Your task to perform on an android device: change notifications settings Image 0: 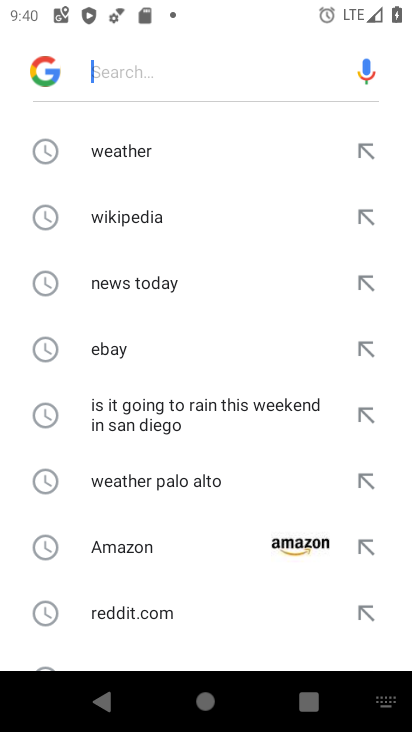
Step 0: press home button
Your task to perform on an android device: change notifications settings Image 1: 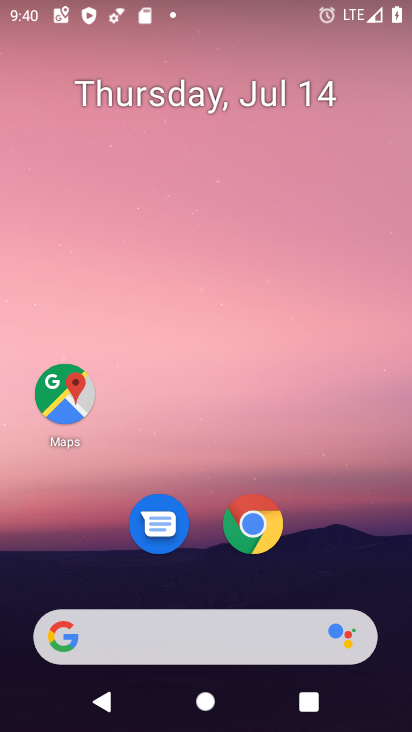
Step 1: drag from (208, 460) to (280, 28)
Your task to perform on an android device: change notifications settings Image 2: 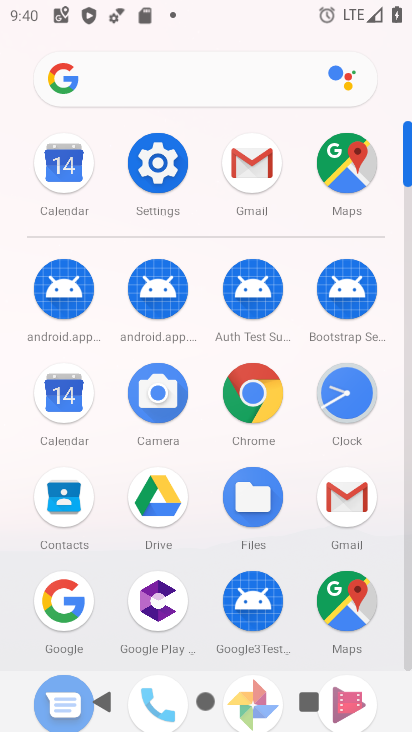
Step 2: click (142, 146)
Your task to perform on an android device: change notifications settings Image 3: 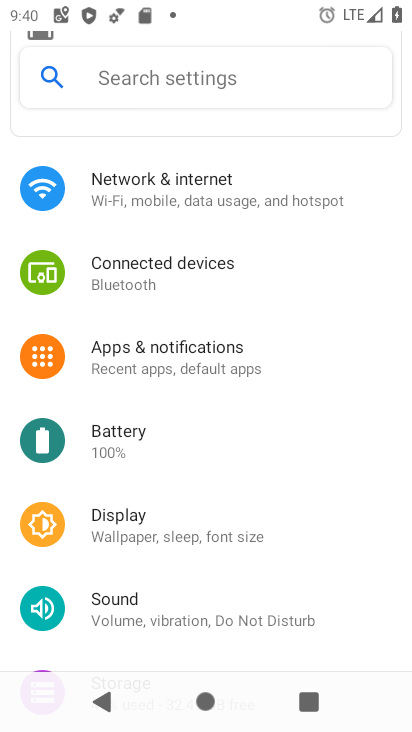
Step 3: click (232, 361)
Your task to perform on an android device: change notifications settings Image 4: 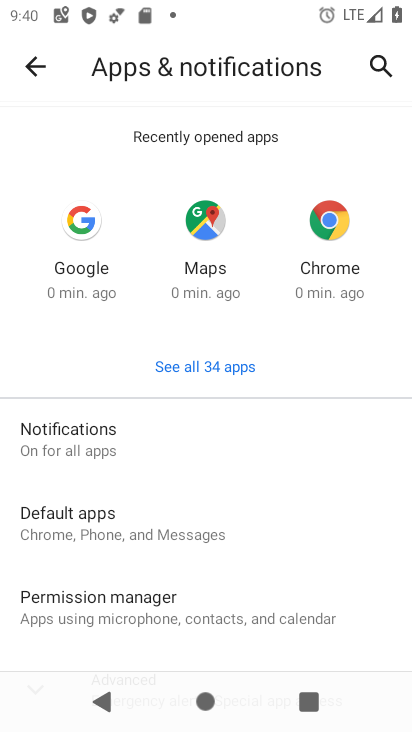
Step 4: click (103, 433)
Your task to perform on an android device: change notifications settings Image 5: 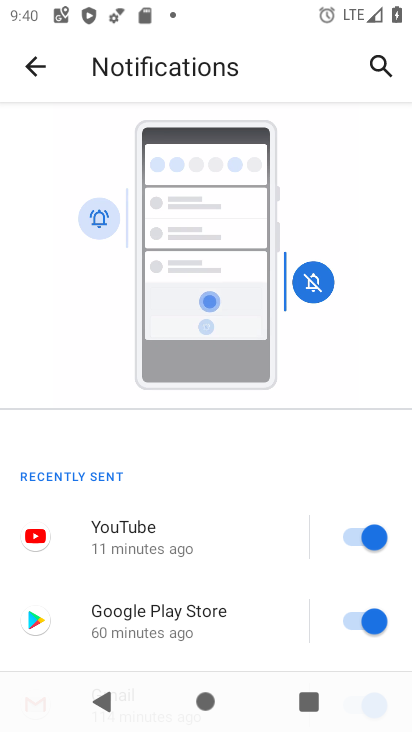
Step 5: drag from (234, 512) to (285, 85)
Your task to perform on an android device: change notifications settings Image 6: 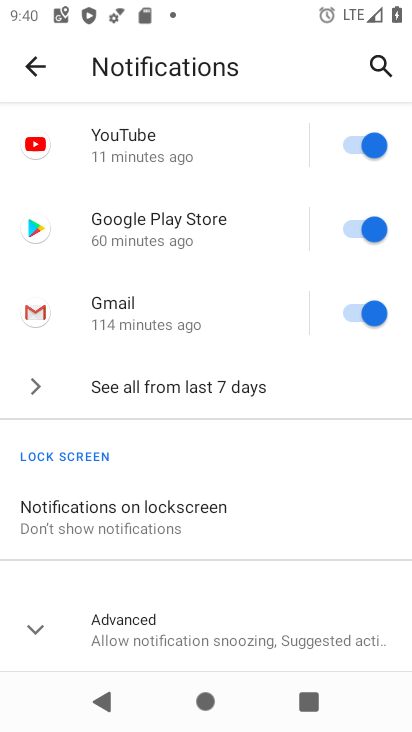
Step 6: click (221, 384)
Your task to perform on an android device: change notifications settings Image 7: 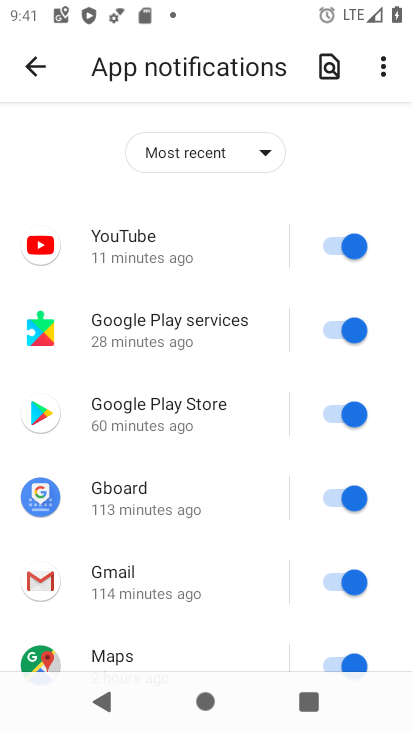
Step 7: click (342, 245)
Your task to perform on an android device: change notifications settings Image 8: 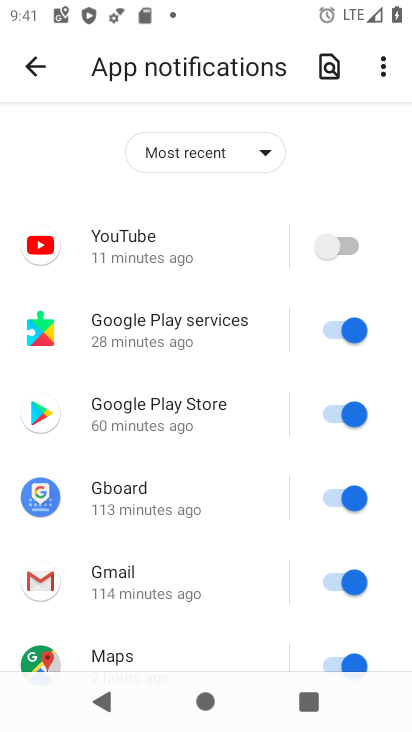
Step 8: click (346, 326)
Your task to perform on an android device: change notifications settings Image 9: 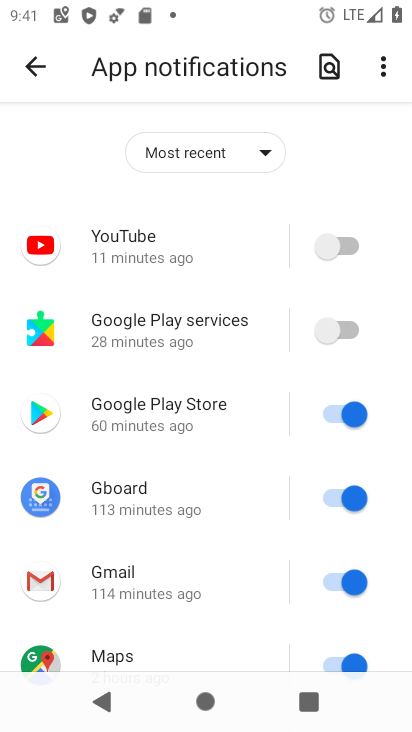
Step 9: click (348, 405)
Your task to perform on an android device: change notifications settings Image 10: 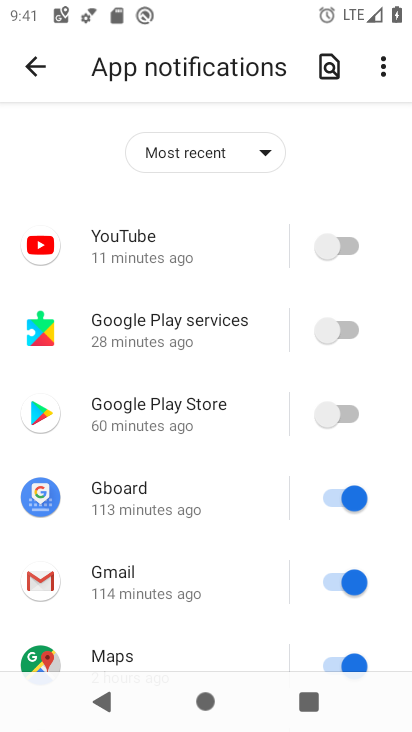
Step 10: click (350, 501)
Your task to perform on an android device: change notifications settings Image 11: 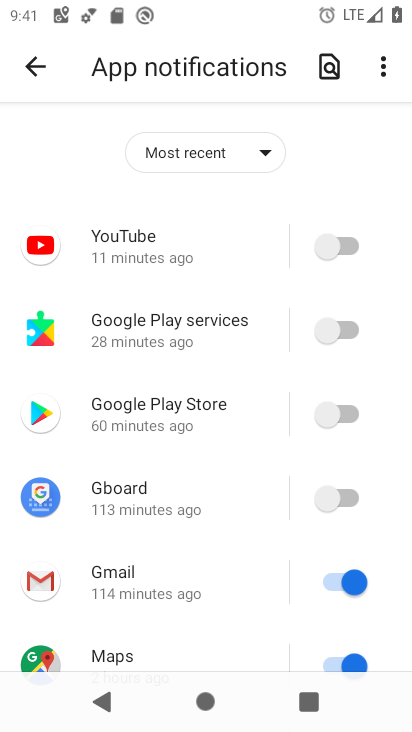
Step 11: click (344, 589)
Your task to perform on an android device: change notifications settings Image 12: 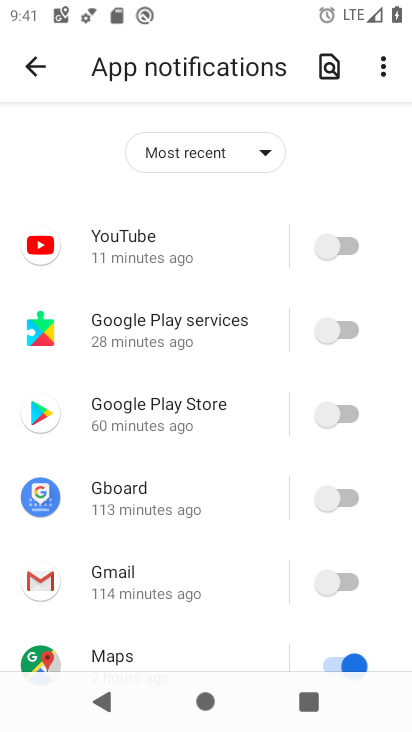
Step 12: drag from (233, 484) to (291, 155)
Your task to perform on an android device: change notifications settings Image 13: 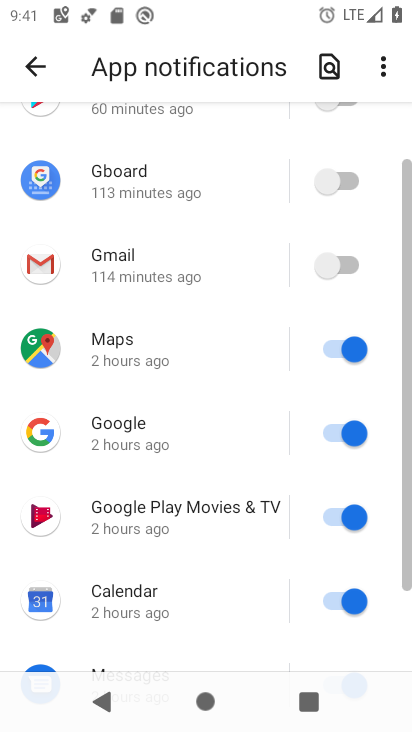
Step 13: drag from (237, 307) to (250, 203)
Your task to perform on an android device: change notifications settings Image 14: 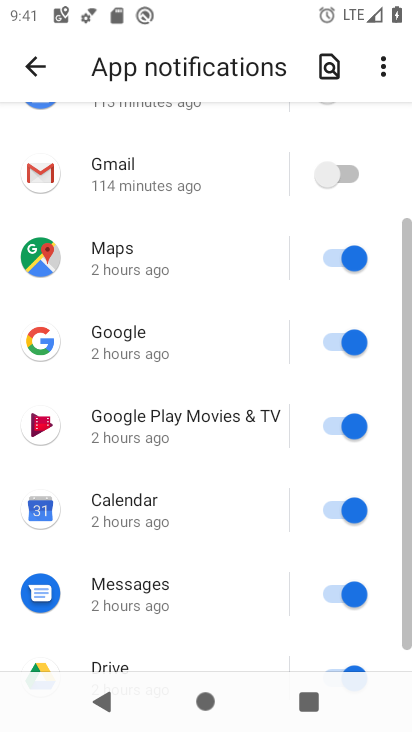
Step 14: drag from (246, 310) to (243, 202)
Your task to perform on an android device: change notifications settings Image 15: 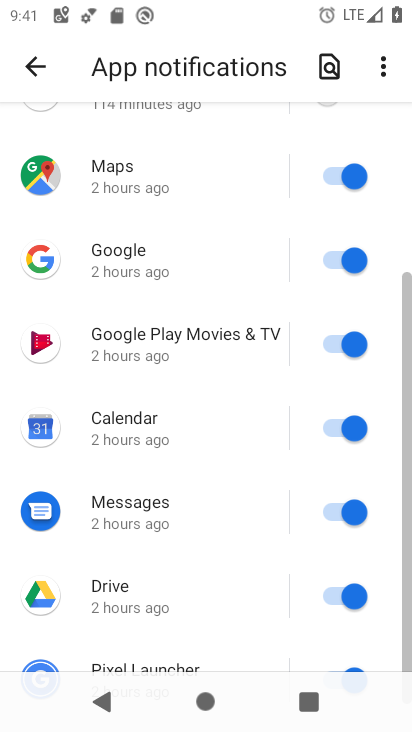
Step 15: click (344, 175)
Your task to perform on an android device: change notifications settings Image 16: 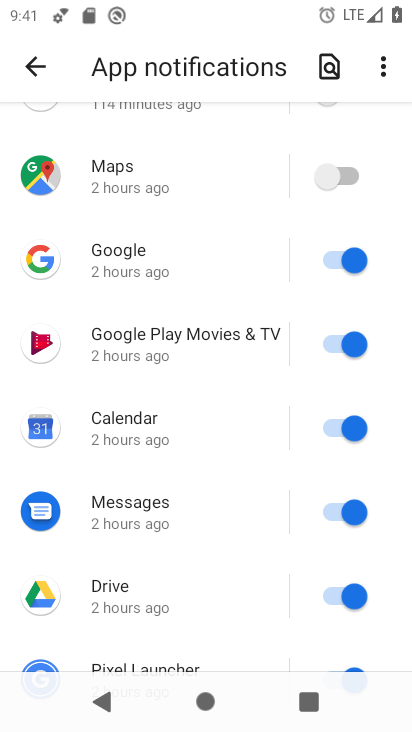
Step 16: click (356, 258)
Your task to perform on an android device: change notifications settings Image 17: 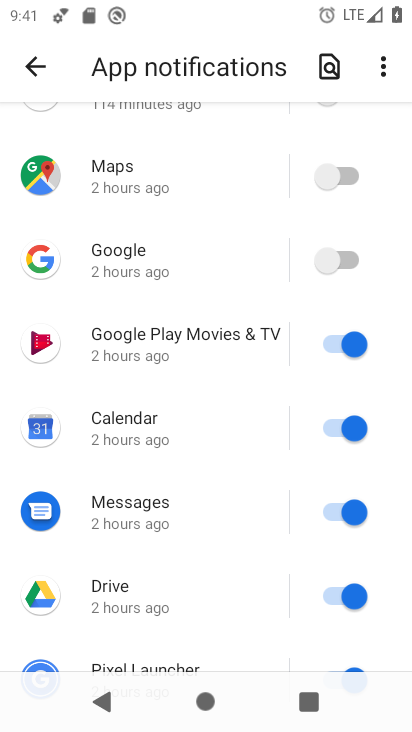
Step 17: click (348, 336)
Your task to perform on an android device: change notifications settings Image 18: 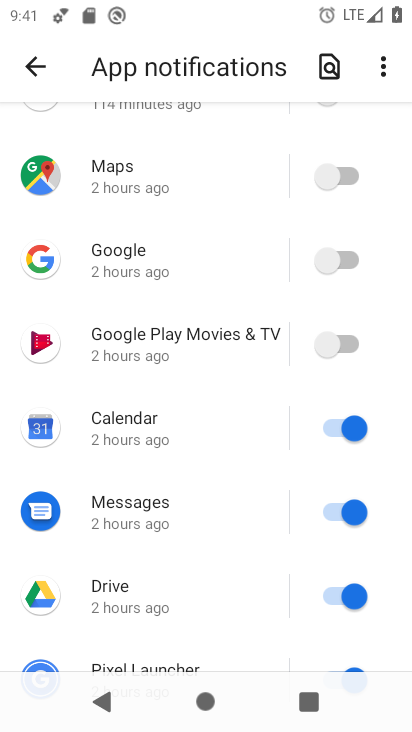
Step 18: click (346, 429)
Your task to perform on an android device: change notifications settings Image 19: 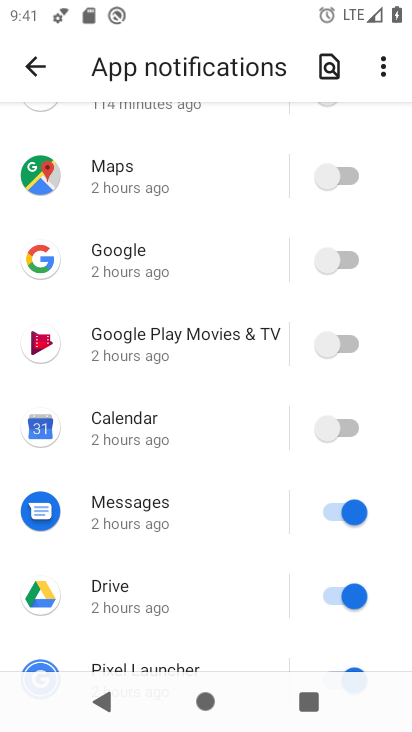
Step 19: click (349, 508)
Your task to perform on an android device: change notifications settings Image 20: 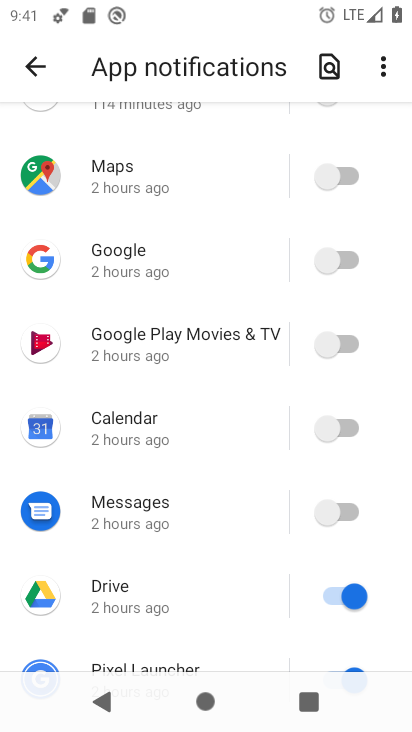
Step 20: drag from (232, 428) to (244, 152)
Your task to perform on an android device: change notifications settings Image 21: 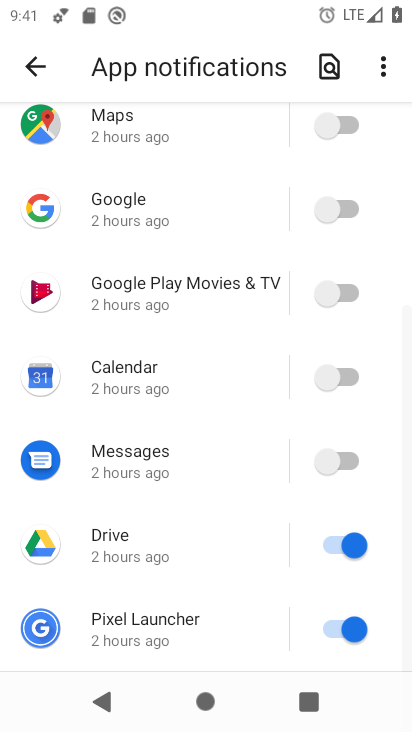
Step 21: click (343, 539)
Your task to perform on an android device: change notifications settings Image 22: 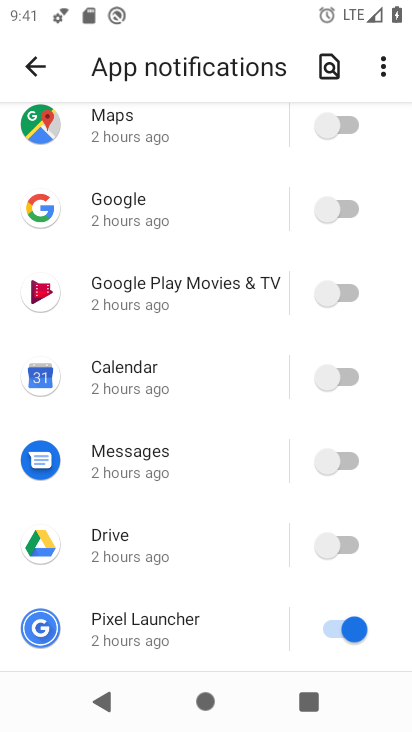
Step 22: click (355, 633)
Your task to perform on an android device: change notifications settings Image 23: 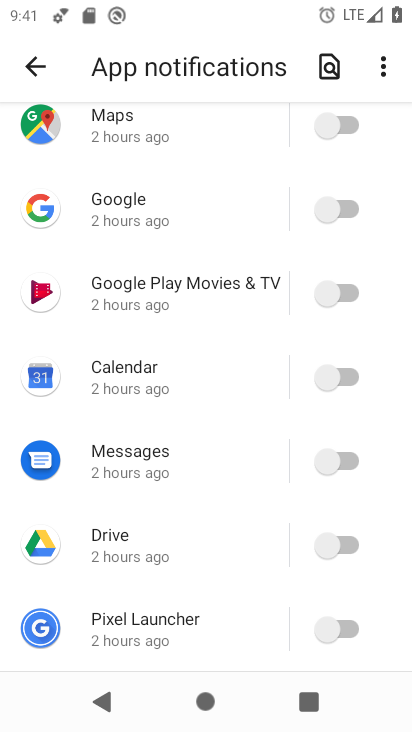
Step 23: task complete